Your task to perform on an android device: Go to Maps Image 0: 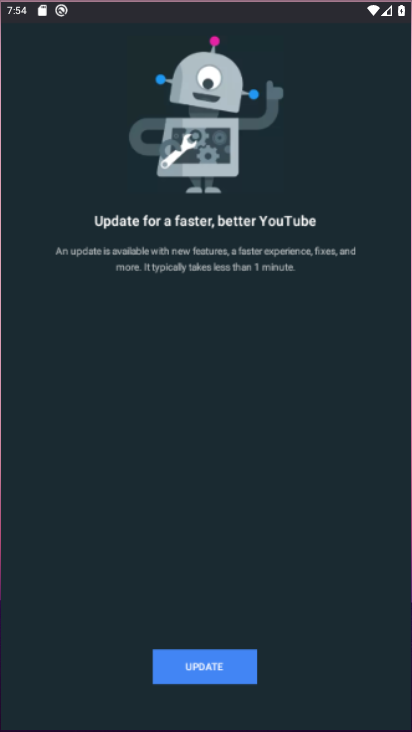
Step 0: drag from (100, 647) to (146, 189)
Your task to perform on an android device: Go to Maps Image 1: 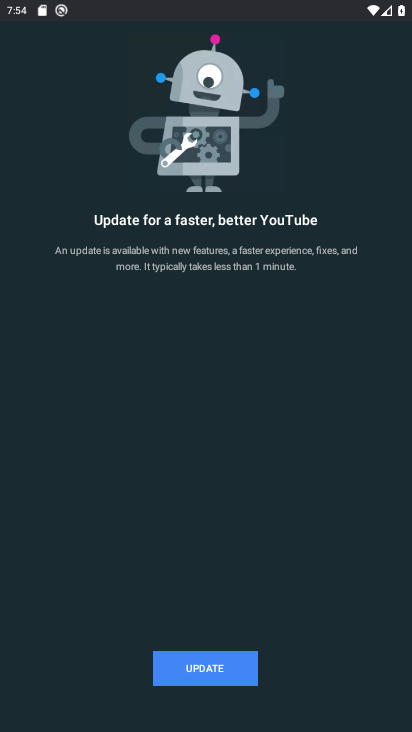
Step 1: press home button
Your task to perform on an android device: Go to Maps Image 2: 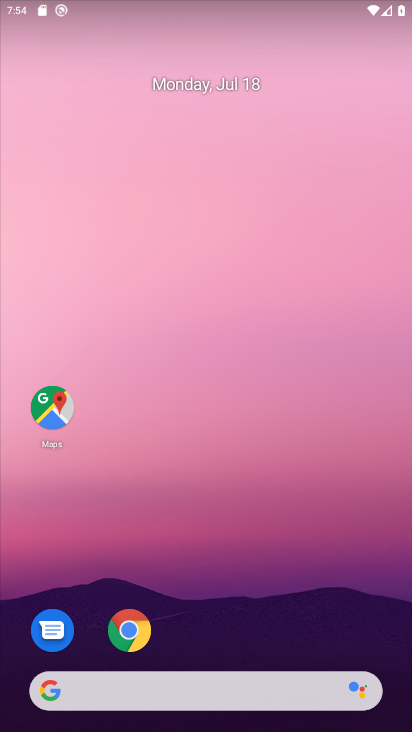
Step 2: click (55, 419)
Your task to perform on an android device: Go to Maps Image 3: 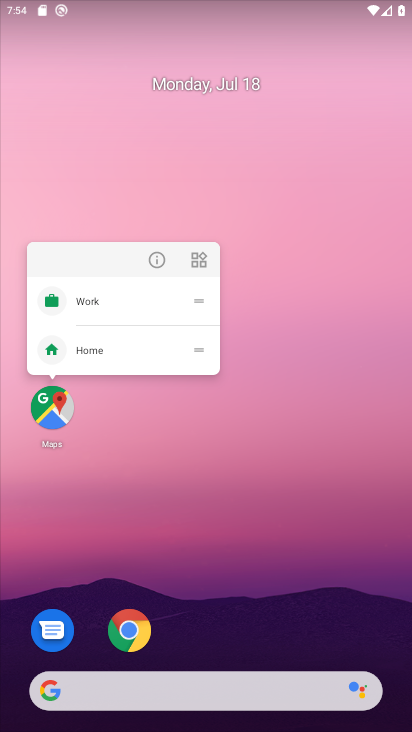
Step 3: click (62, 407)
Your task to perform on an android device: Go to Maps Image 4: 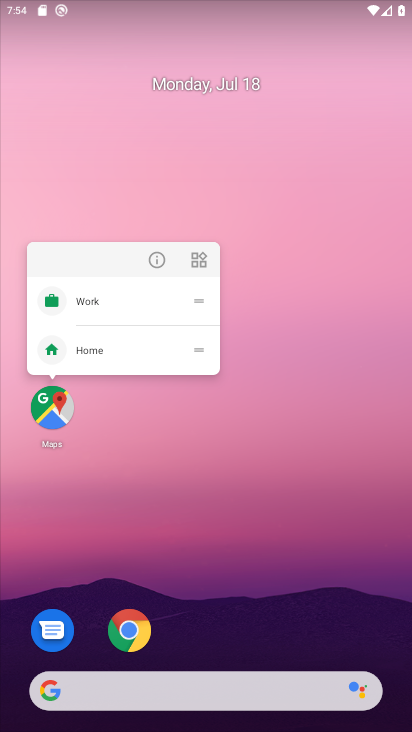
Step 4: click (44, 423)
Your task to perform on an android device: Go to Maps Image 5: 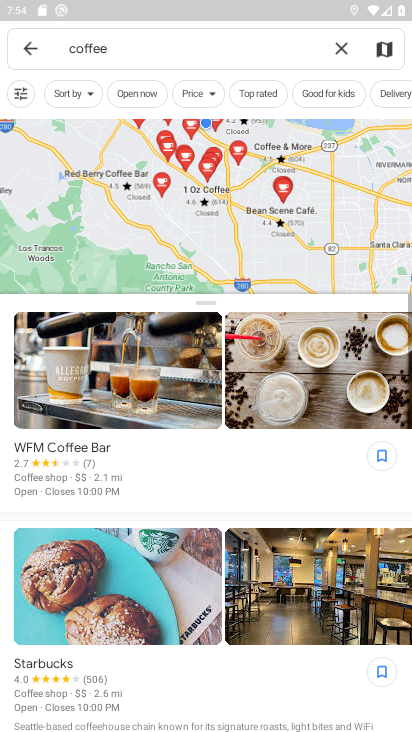
Step 5: task complete